Your task to perform on an android device: Do I have any events this weekend? Image 0: 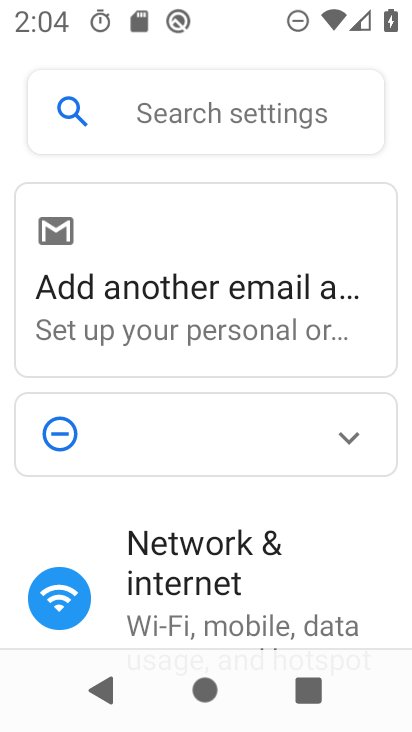
Step 0: press home button
Your task to perform on an android device: Do I have any events this weekend? Image 1: 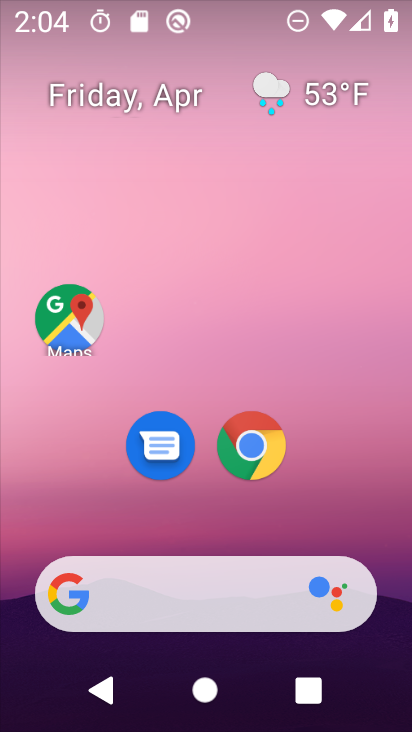
Step 1: drag from (366, 529) to (353, 152)
Your task to perform on an android device: Do I have any events this weekend? Image 2: 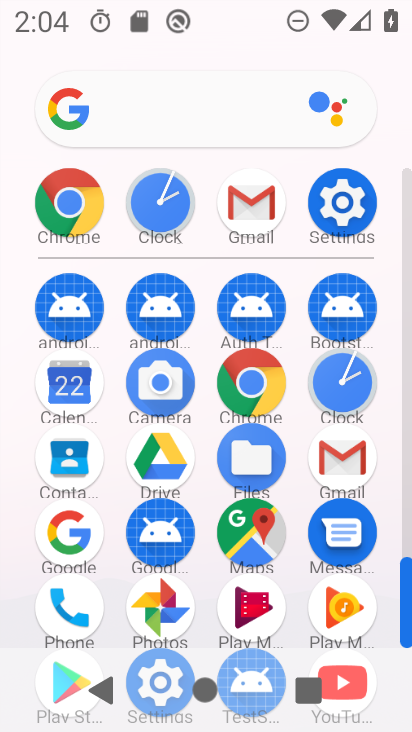
Step 2: click (73, 392)
Your task to perform on an android device: Do I have any events this weekend? Image 3: 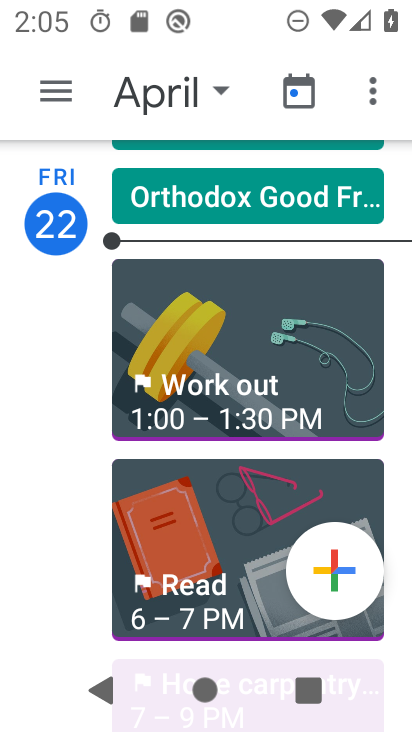
Step 3: drag from (232, 493) to (232, 216)
Your task to perform on an android device: Do I have any events this weekend? Image 4: 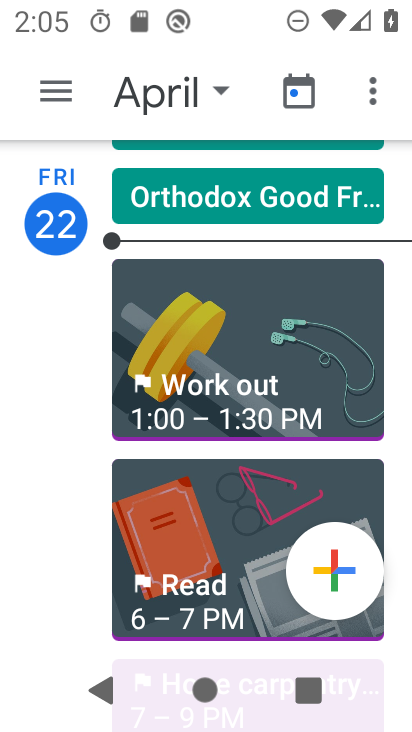
Step 4: click (209, 90)
Your task to perform on an android device: Do I have any events this weekend? Image 5: 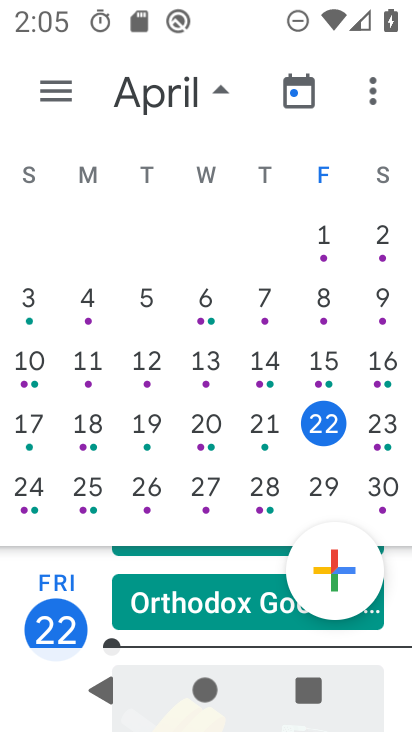
Step 5: click (393, 412)
Your task to perform on an android device: Do I have any events this weekend? Image 6: 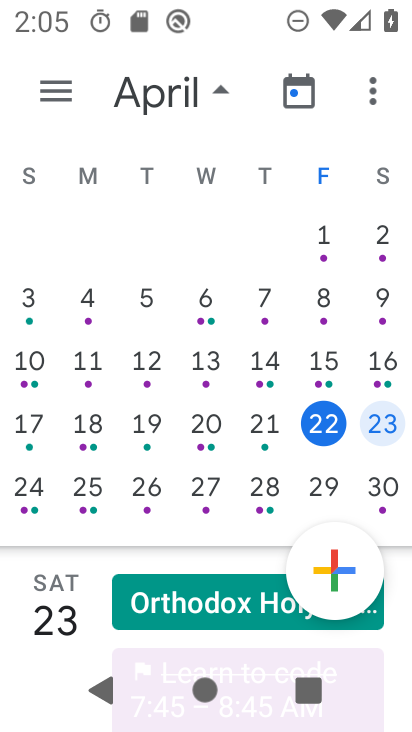
Step 6: drag from (234, 532) to (226, 138)
Your task to perform on an android device: Do I have any events this weekend? Image 7: 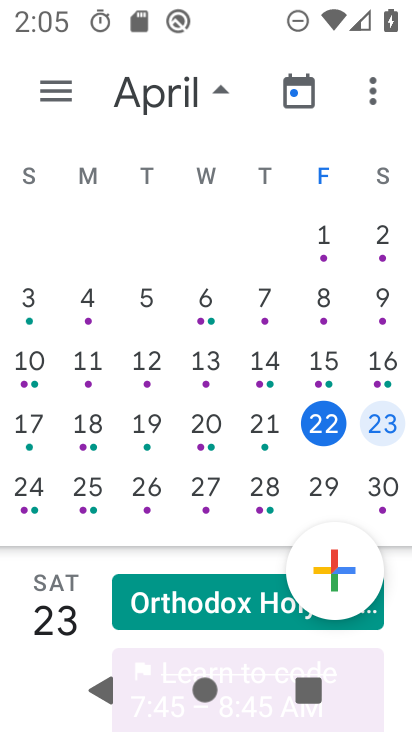
Step 7: click (206, 604)
Your task to perform on an android device: Do I have any events this weekend? Image 8: 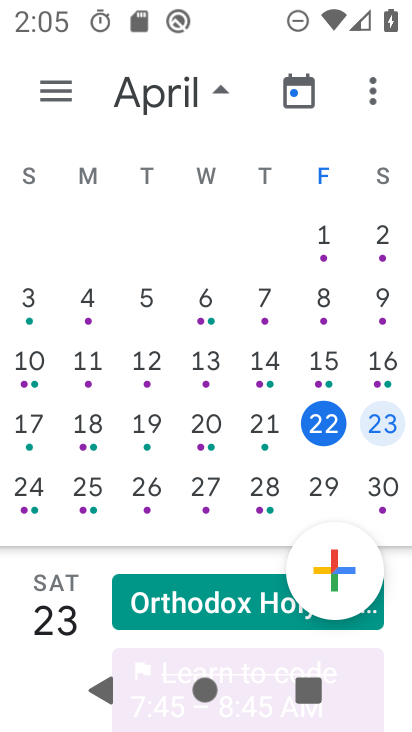
Step 8: task complete